Your task to perform on an android device: Open Chrome and go to the settings page Image 0: 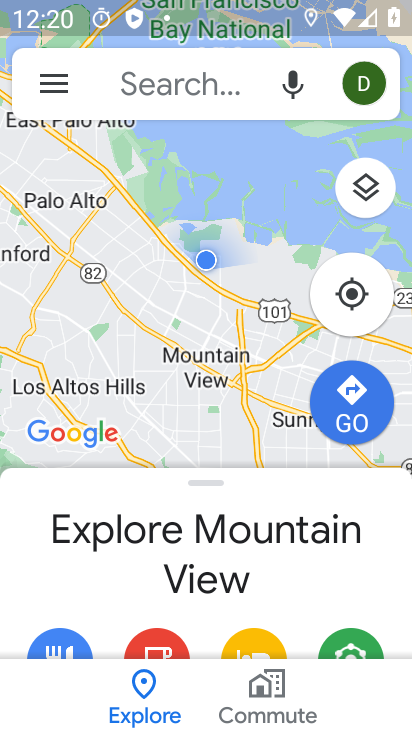
Step 0: press home button
Your task to perform on an android device: Open Chrome and go to the settings page Image 1: 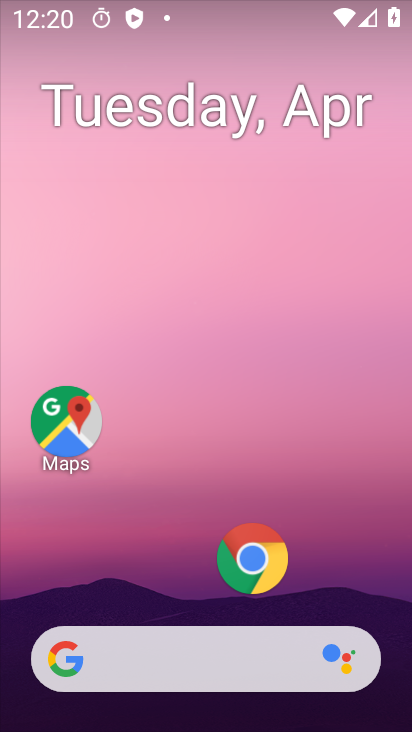
Step 1: click (254, 563)
Your task to perform on an android device: Open Chrome and go to the settings page Image 2: 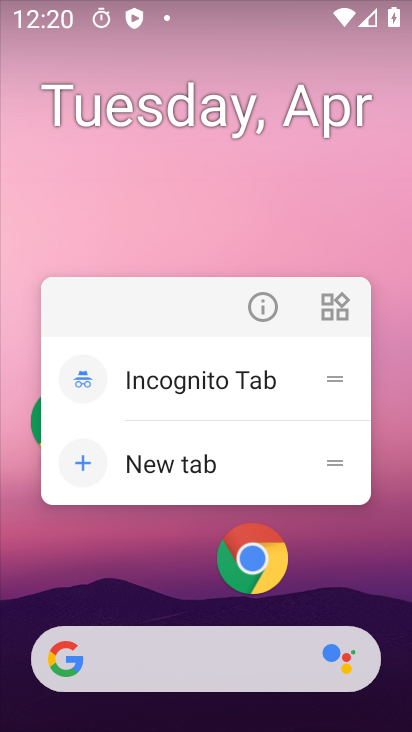
Step 2: click (252, 555)
Your task to perform on an android device: Open Chrome and go to the settings page Image 3: 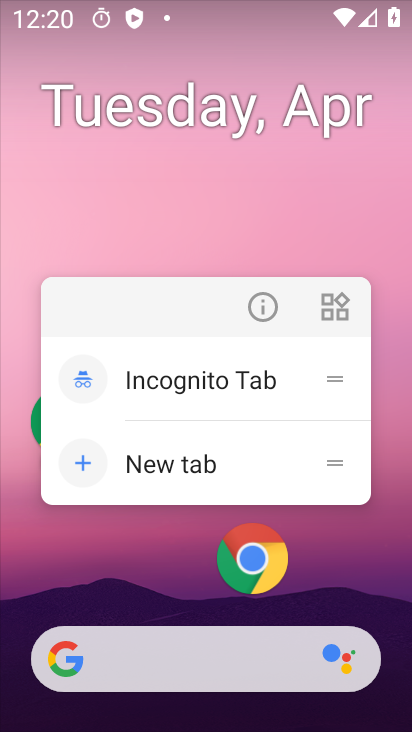
Step 3: click (252, 555)
Your task to perform on an android device: Open Chrome and go to the settings page Image 4: 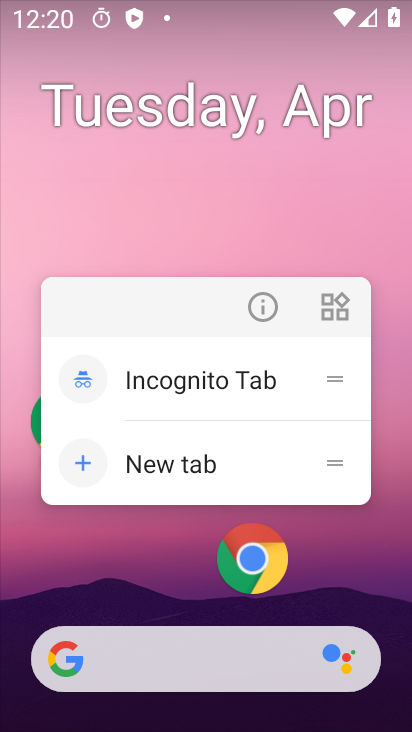
Step 4: click (259, 311)
Your task to perform on an android device: Open Chrome and go to the settings page Image 5: 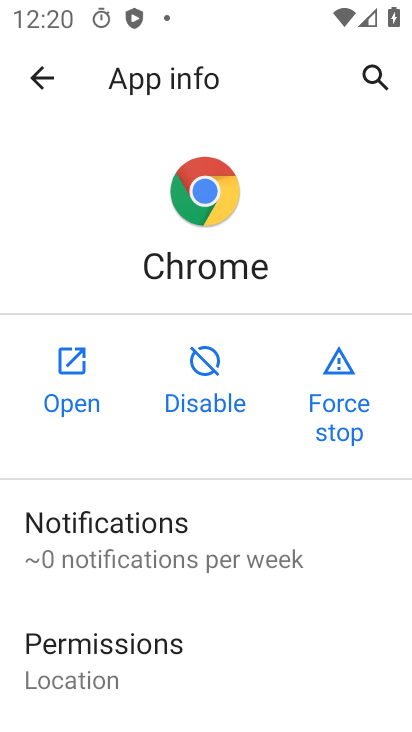
Step 5: click (64, 390)
Your task to perform on an android device: Open Chrome and go to the settings page Image 6: 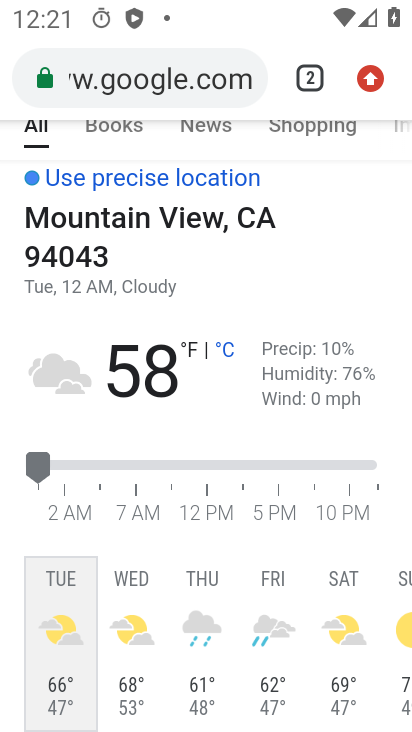
Step 6: click (157, 91)
Your task to perform on an android device: Open Chrome and go to the settings page Image 7: 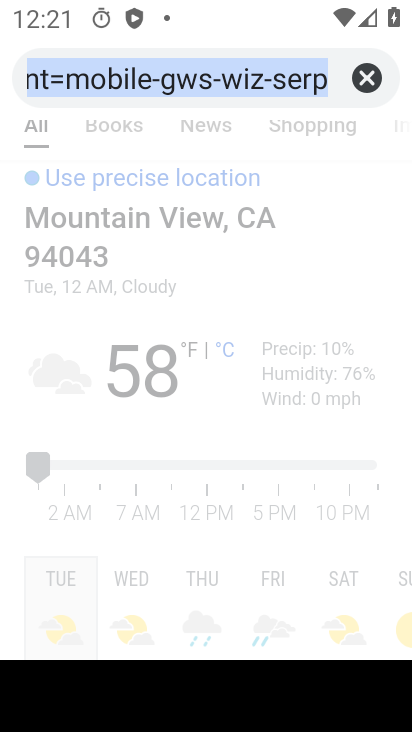
Step 7: click (334, 178)
Your task to perform on an android device: Open Chrome and go to the settings page Image 8: 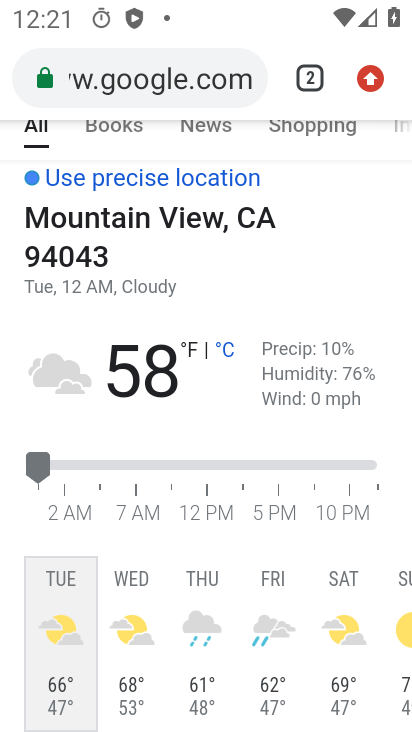
Step 8: click (367, 81)
Your task to perform on an android device: Open Chrome and go to the settings page Image 9: 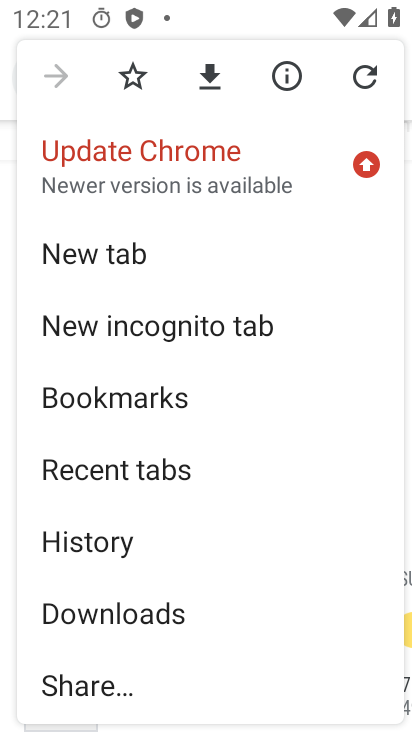
Step 9: drag from (89, 595) to (88, 302)
Your task to perform on an android device: Open Chrome and go to the settings page Image 10: 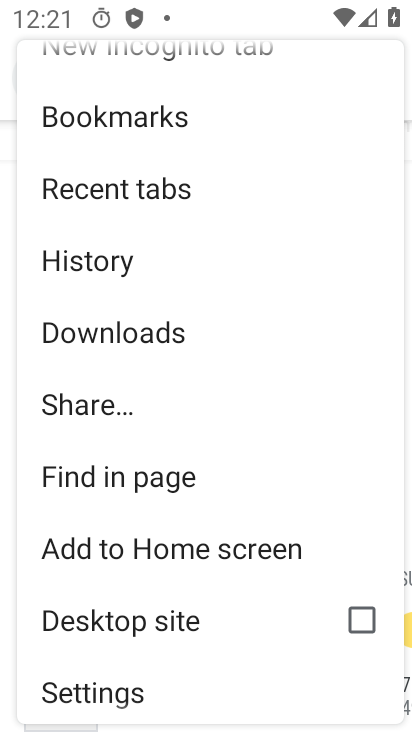
Step 10: click (124, 689)
Your task to perform on an android device: Open Chrome and go to the settings page Image 11: 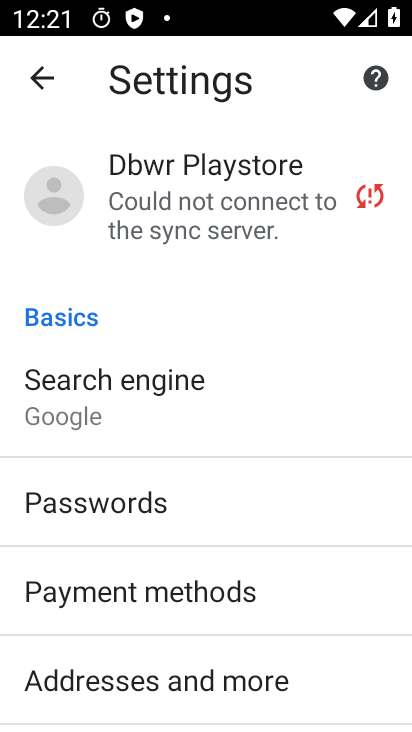
Step 11: task complete